Your task to perform on an android device: Clear all items from cart on costco.com. Image 0: 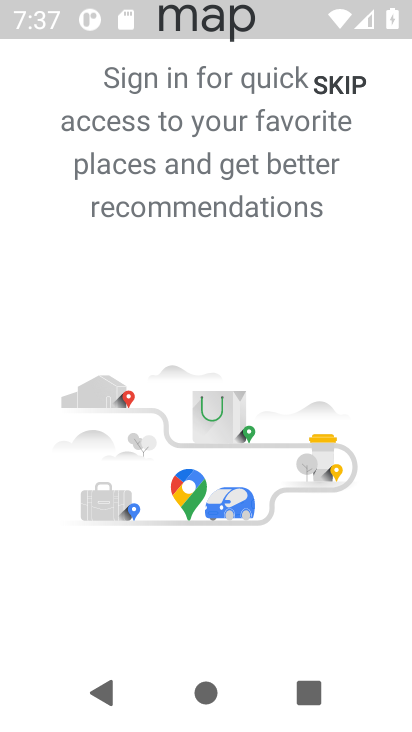
Step 0: press home button
Your task to perform on an android device: Clear all items from cart on costco.com. Image 1: 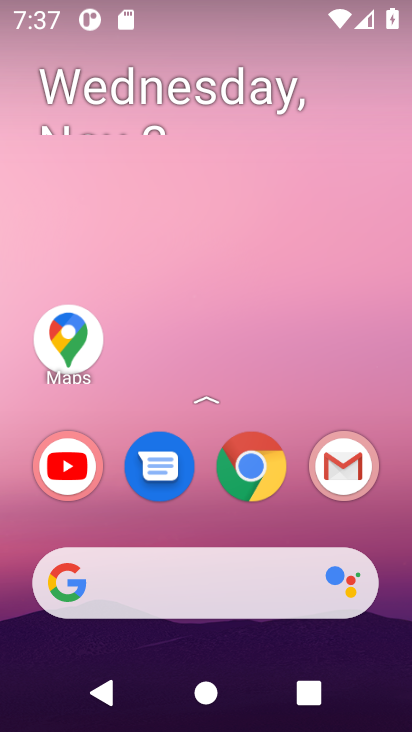
Step 1: click (141, 570)
Your task to perform on an android device: Clear all items from cart on costco.com. Image 2: 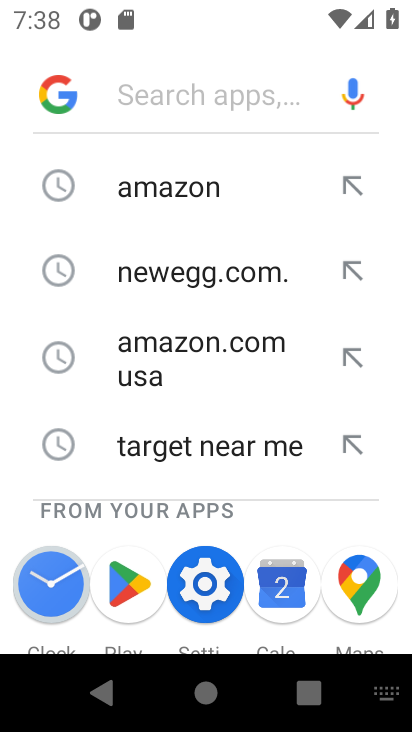
Step 2: type "costco.com"
Your task to perform on an android device: Clear all items from cart on costco.com. Image 3: 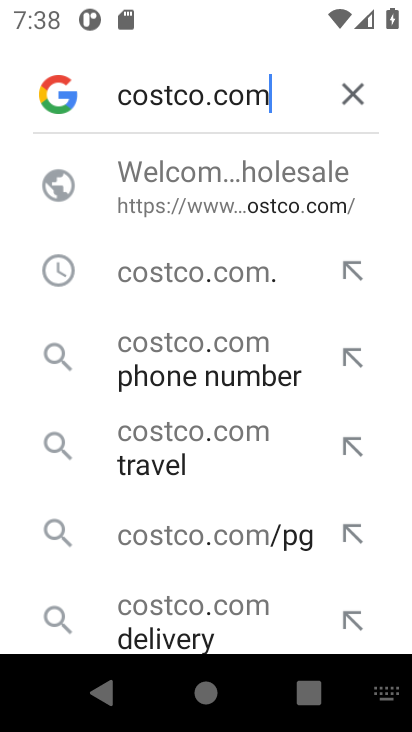
Step 3: click (167, 193)
Your task to perform on an android device: Clear all items from cart on costco.com. Image 4: 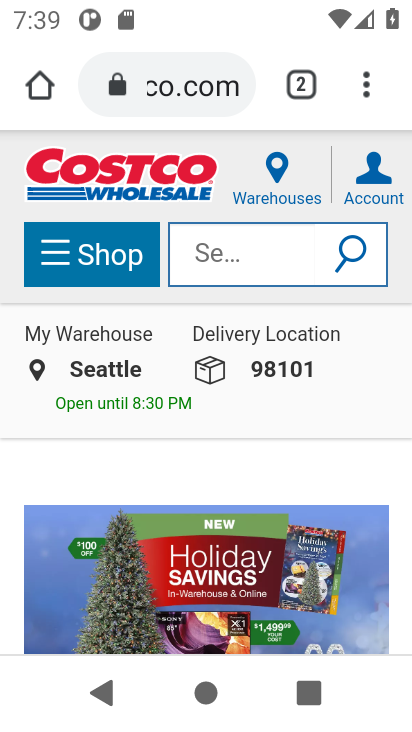
Step 4: drag from (310, 363) to (324, 221)
Your task to perform on an android device: Clear all items from cart on costco.com. Image 5: 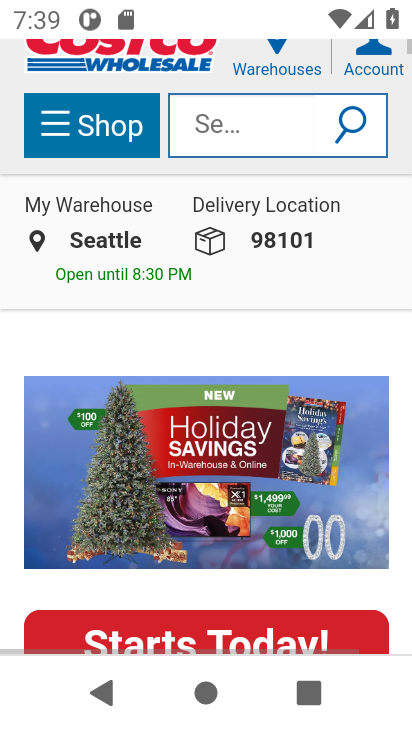
Step 5: drag from (328, 453) to (303, 212)
Your task to perform on an android device: Clear all items from cart on costco.com. Image 6: 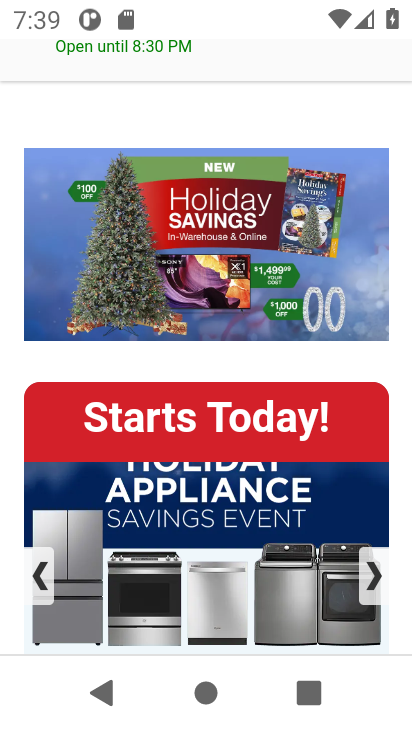
Step 6: drag from (253, 424) to (264, 105)
Your task to perform on an android device: Clear all items from cart on costco.com. Image 7: 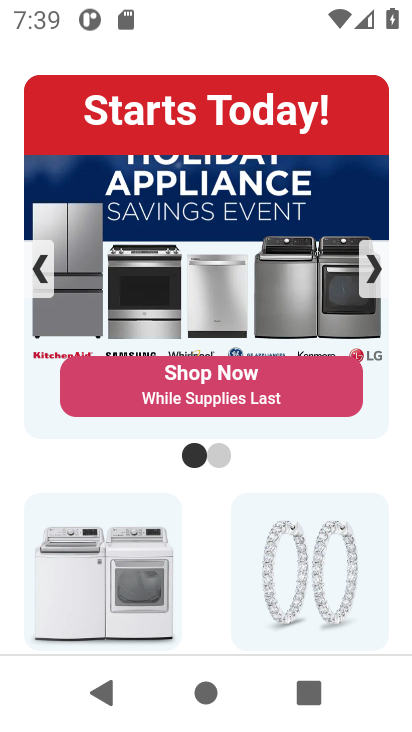
Step 7: drag from (257, 179) to (251, 462)
Your task to perform on an android device: Clear all items from cart on costco.com. Image 8: 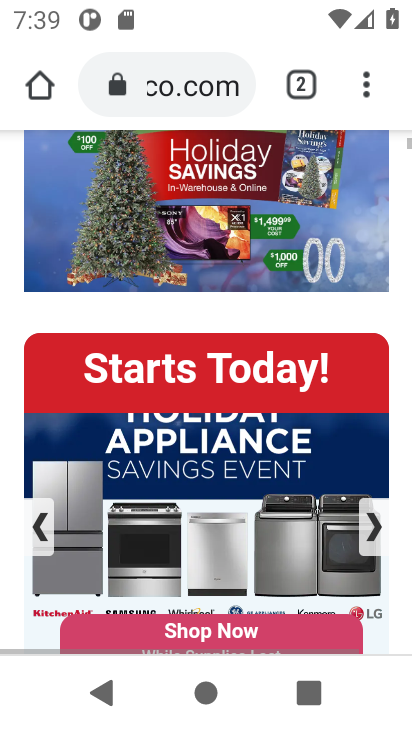
Step 8: drag from (246, 248) to (260, 491)
Your task to perform on an android device: Clear all items from cart on costco.com. Image 9: 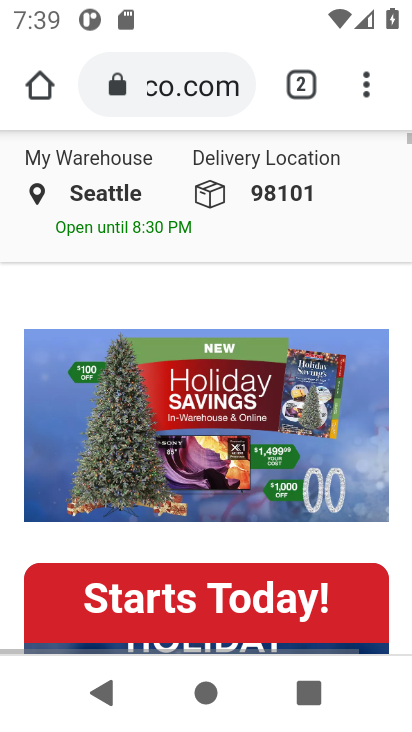
Step 9: drag from (234, 270) to (231, 566)
Your task to perform on an android device: Clear all items from cart on costco.com. Image 10: 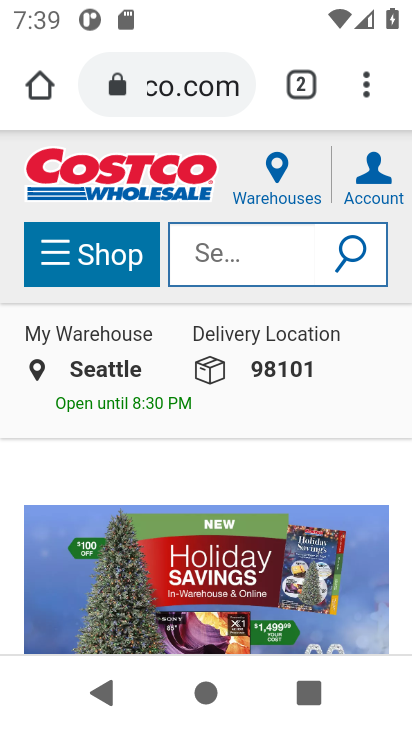
Step 10: drag from (253, 377) to (256, 579)
Your task to perform on an android device: Clear all items from cart on costco.com. Image 11: 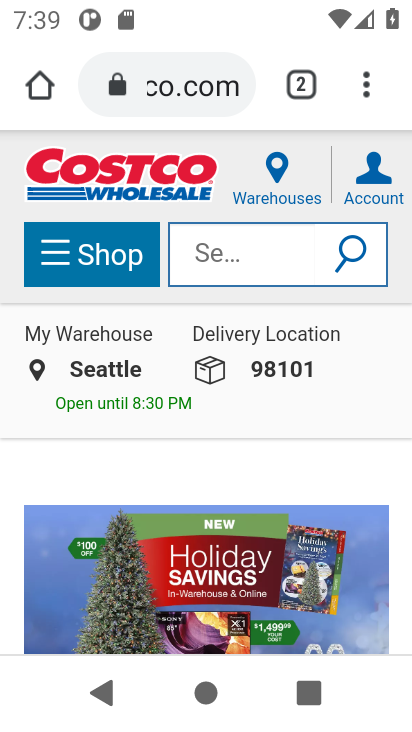
Step 11: click (68, 242)
Your task to perform on an android device: Clear all items from cart on costco.com. Image 12: 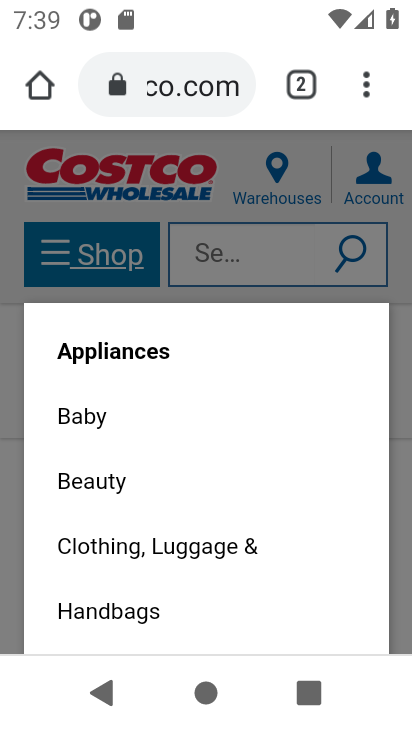
Step 12: click (409, 324)
Your task to perform on an android device: Clear all items from cart on costco.com. Image 13: 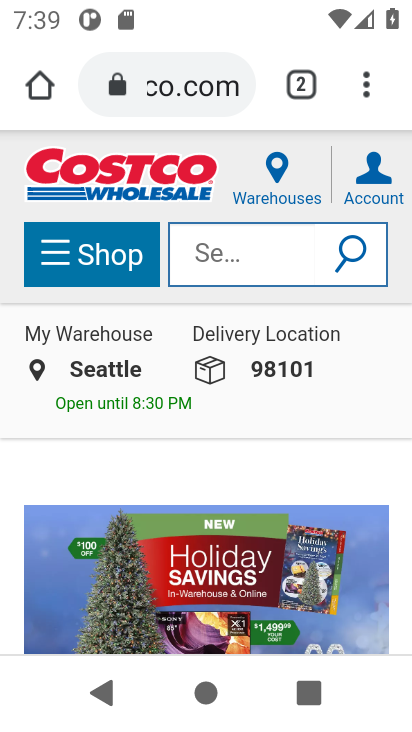
Step 13: drag from (346, 436) to (345, 237)
Your task to perform on an android device: Clear all items from cart on costco.com. Image 14: 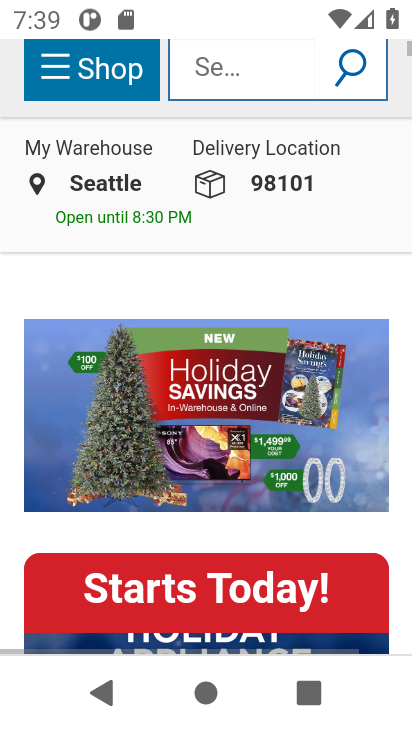
Step 14: drag from (322, 391) to (314, 225)
Your task to perform on an android device: Clear all items from cart on costco.com. Image 15: 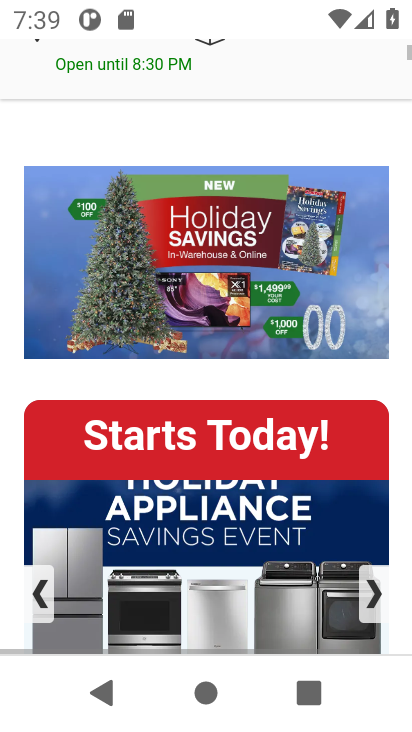
Step 15: drag from (230, 627) to (235, 200)
Your task to perform on an android device: Clear all items from cart on costco.com. Image 16: 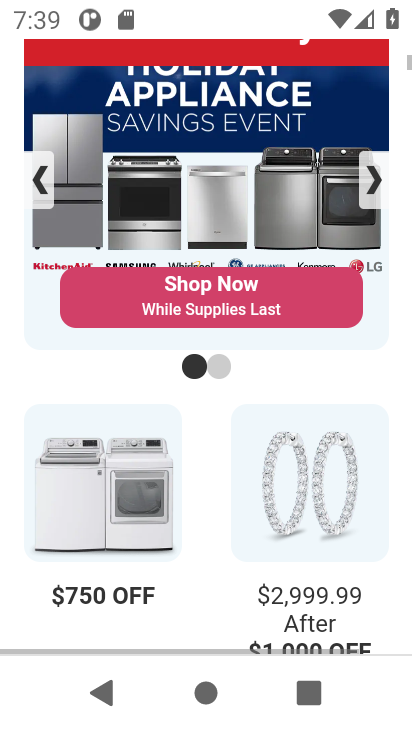
Step 16: drag from (215, 498) to (215, 260)
Your task to perform on an android device: Clear all items from cart on costco.com. Image 17: 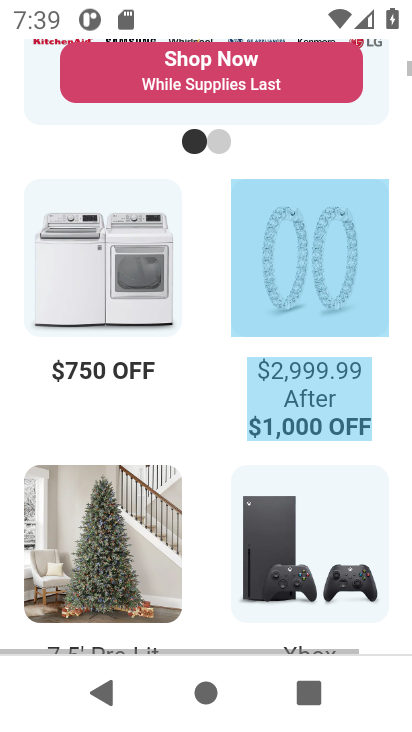
Step 17: drag from (216, 444) to (224, 198)
Your task to perform on an android device: Clear all items from cart on costco.com. Image 18: 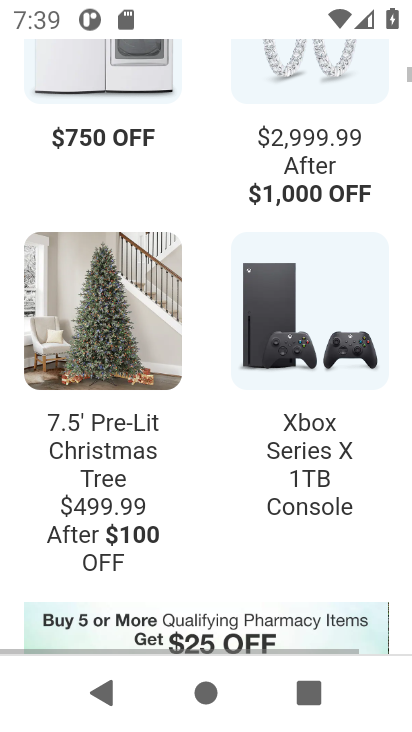
Step 18: drag from (215, 463) to (221, 205)
Your task to perform on an android device: Clear all items from cart on costco.com. Image 19: 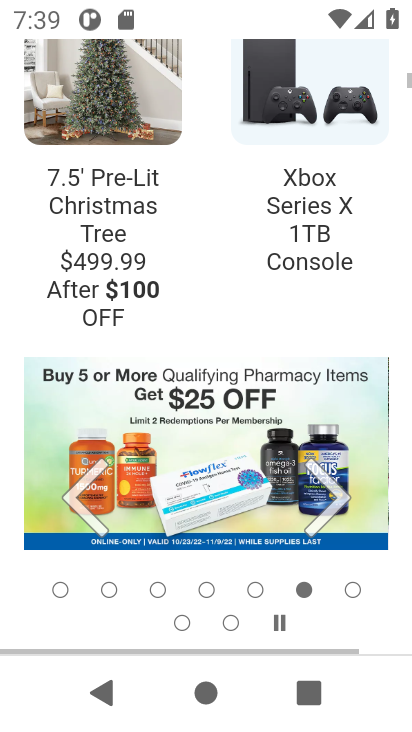
Step 19: drag from (235, 365) to (299, 53)
Your task to perform on an android device: Clear all items from cart on costco.com. Image 20: 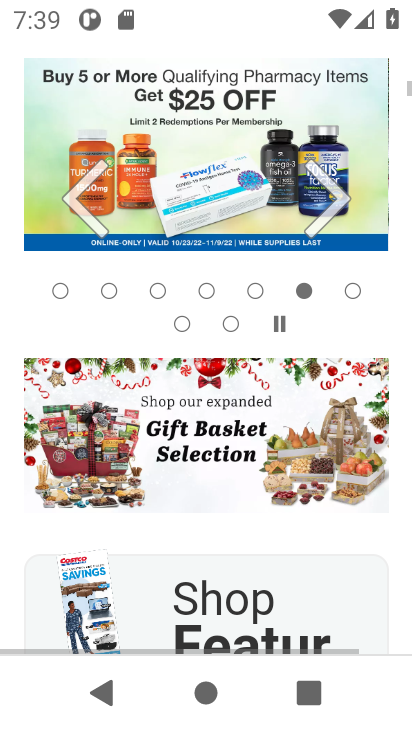
Step 20: drag from (267, 460) to (284, 133)
Your task to perform on an android device: Clear all items from cart on costco.com. Image 21: 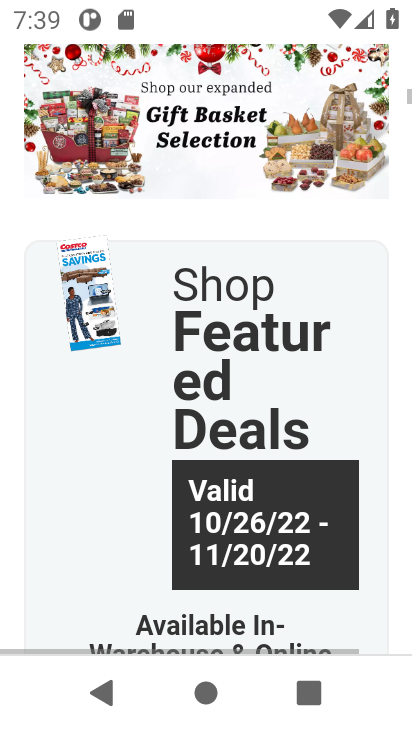
Step 21: drag from (270, 456) to (261, 116)
Your task to perform on an android device: Clear all items from cart on costco.com. Image 22: 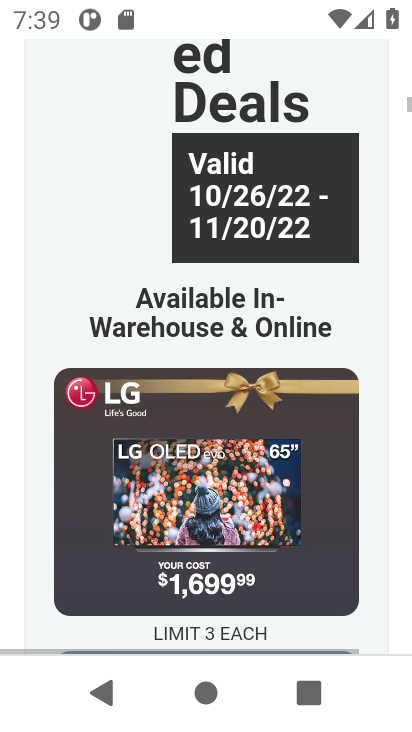
Step 22: drag from (268, 405) to (302, 96)
Your task to perform on an android device: Clear all items from cart on costco.com. Image 23: 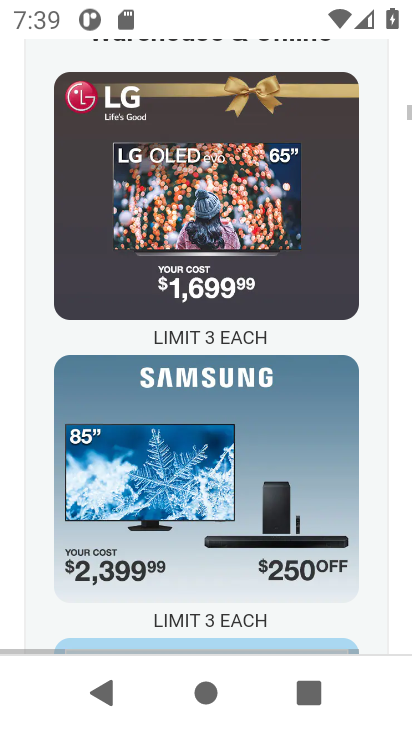
Step 23: drag from (331, 318) to (356, 85)
Your task to perform on an android device: Clear all items from cart on costco.com. Image 24: 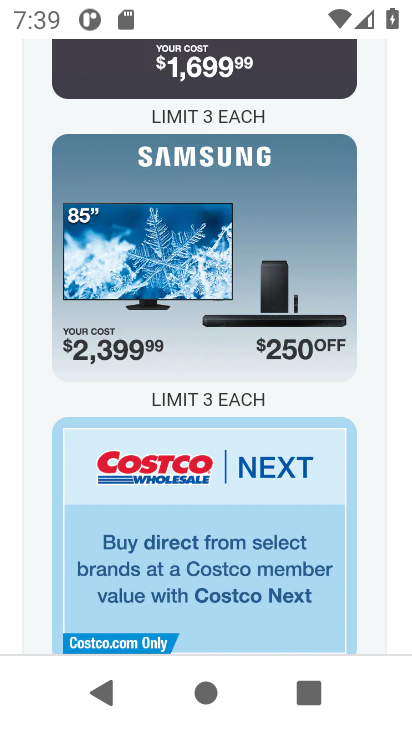
Step 24: drag from (364, 401) to (359, 59)
Your task to perform on an android device: Clear all items from cart on costco.com. Image 25: 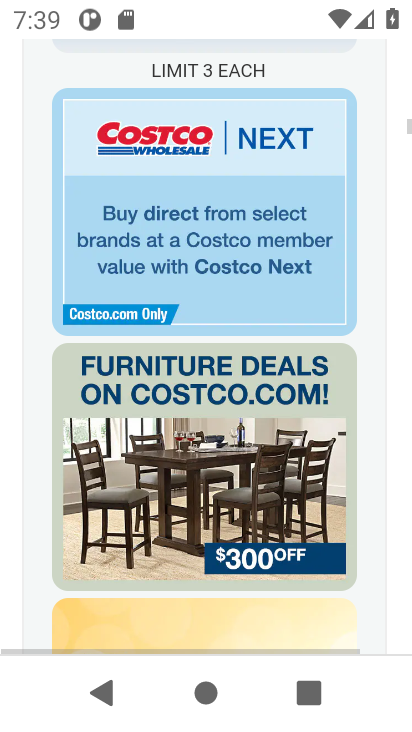
Step 25: drag from (360, 410) to (380, 145)
Your task to perform on an android device: Clear all items from cart on costco.com. Image 26: 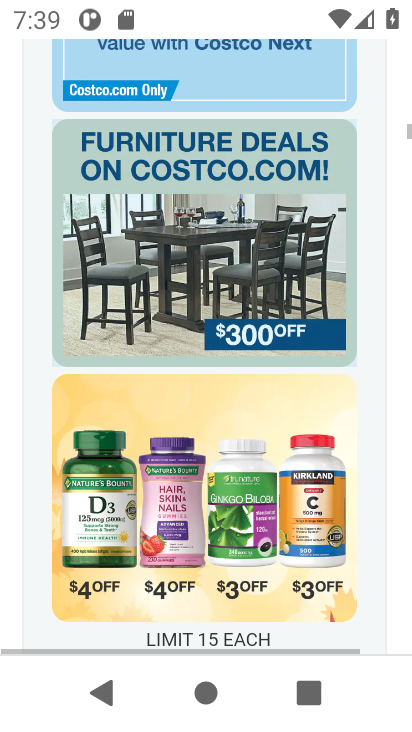
Step 26: drag from (359, 432) to (365, 212)
Your task to perform on an android device: Clear all items from cart on costco.com. Image 27: 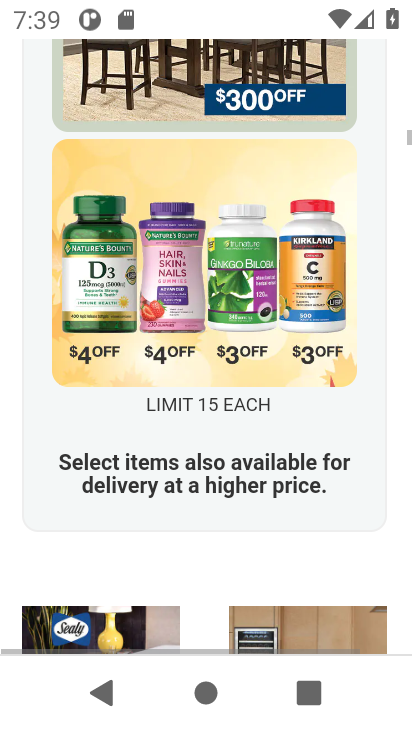
Step 27: click (365, 302)
Your task to perform on an android device: Clear all items from cart on costco.com. Image 28: 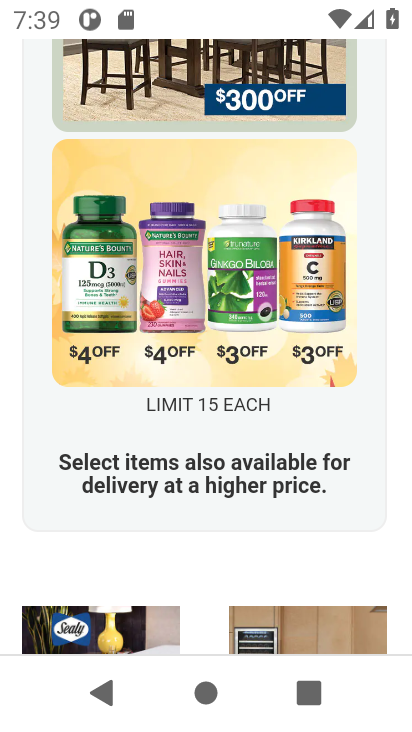
Step 28: drag from (361, 373) to (367, 122)
Your task to perform on an android device: Clear all items from cart on costco.com. Image 29: 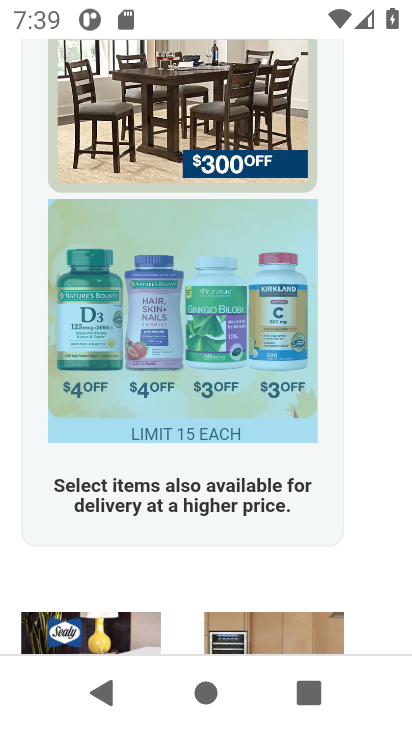
Step 29: drag from (337, 553) to (319, 258)
Your task to perform on an android device: Clear all items from cart on costco.com. Image 30: 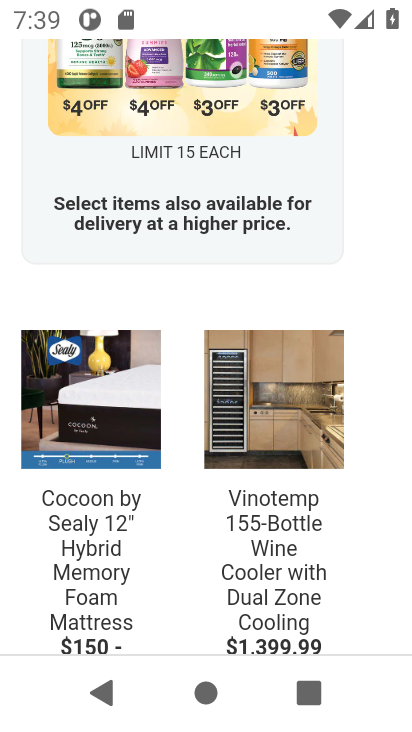
Step 30: drag from (380, 490) to (318, 2)
Your task to perform on an android device: Clear all items from cart on costco.com. Image 31: 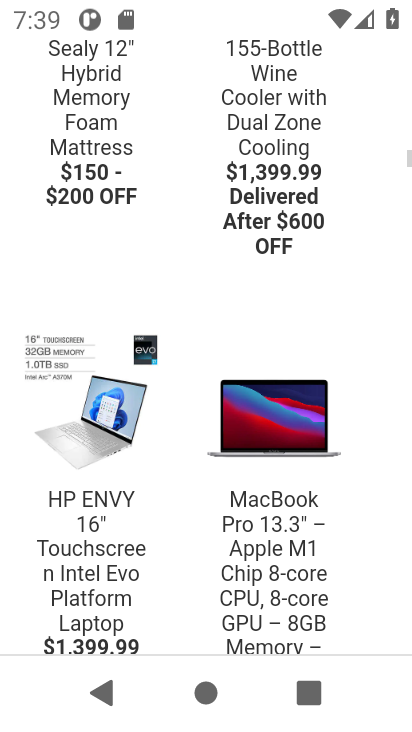
Step 31: drag from (348, 354) to (346, 101)
Your task to perform on an android device: Clear all items from cart on costco.com. Image 32: 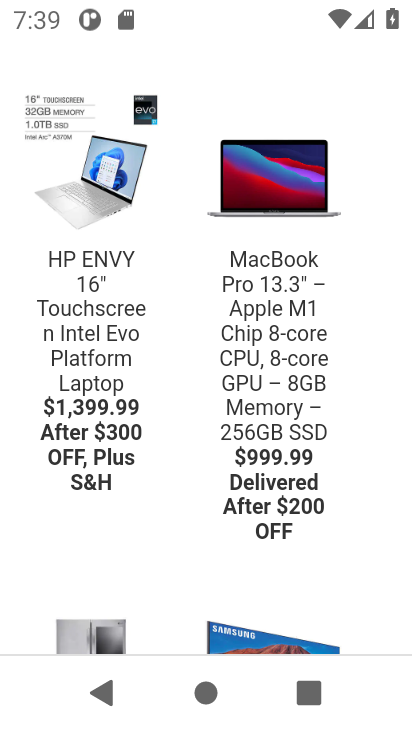
Step 32: drag from (329, 472) to (330, 138)
Your task to perform on an android device: Clear all items from cart on costco.com. Image 33: 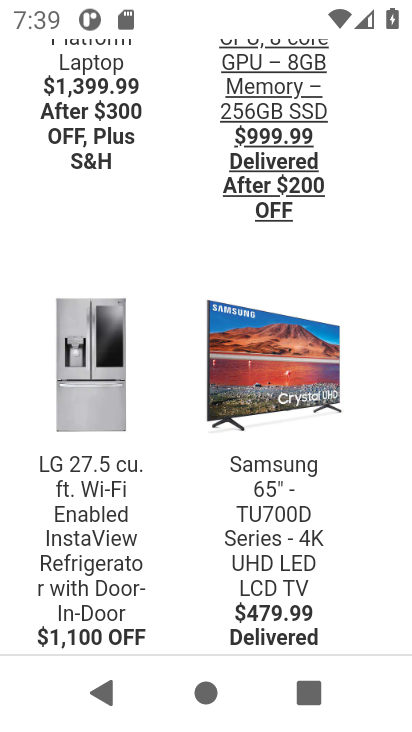
Step 33: drag from (331, 190) to (328, 440)
Your task to perform on an android device: Clear all items from cart on costco.com. Image 34: 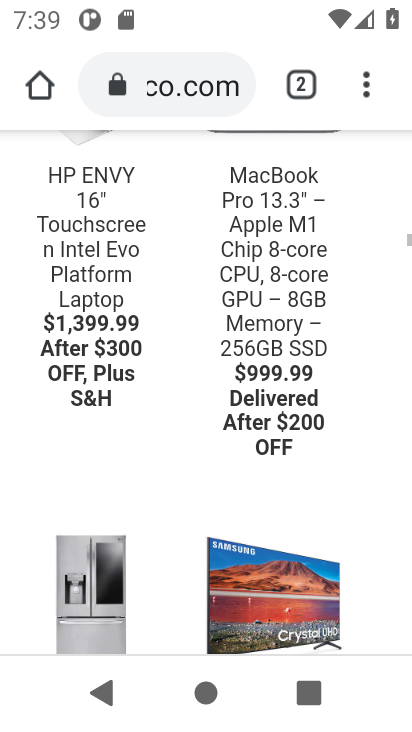
Step 34: drag from (331, 251) to (332, 410)
Your task to perform on an android device: Clear all items from cart on costco.com. Image 35: 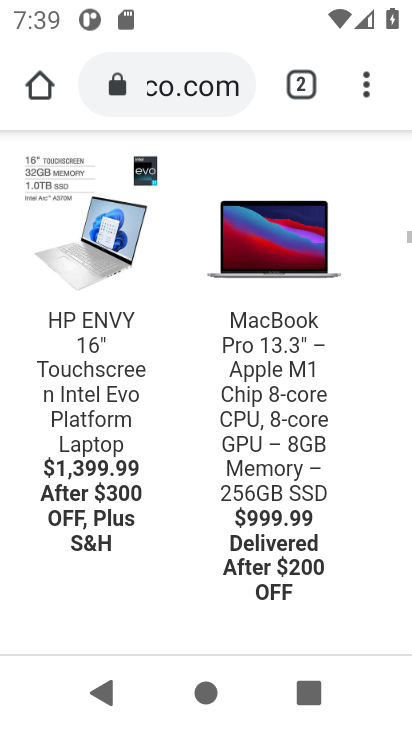
Step 35: drag from (333, 248) to (318, 519)
Your task to perform on an android device: Clear all items from cart on costco.com. Image 36: 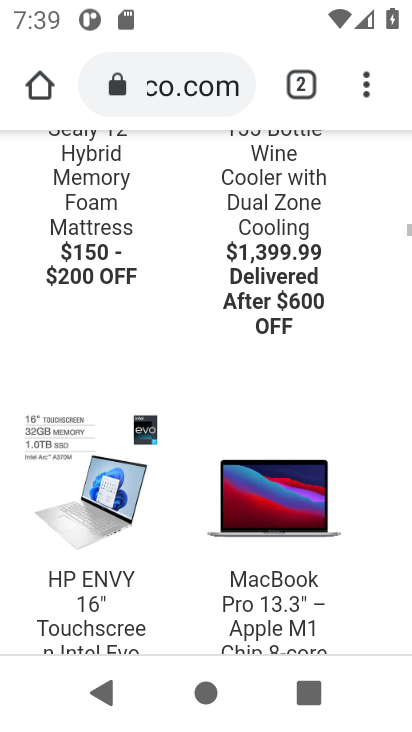
Step 36: drag from (305, 363) to (280, 566)
Your task to perform on an android device: Clear all items from cart on costco.com. Image 37: 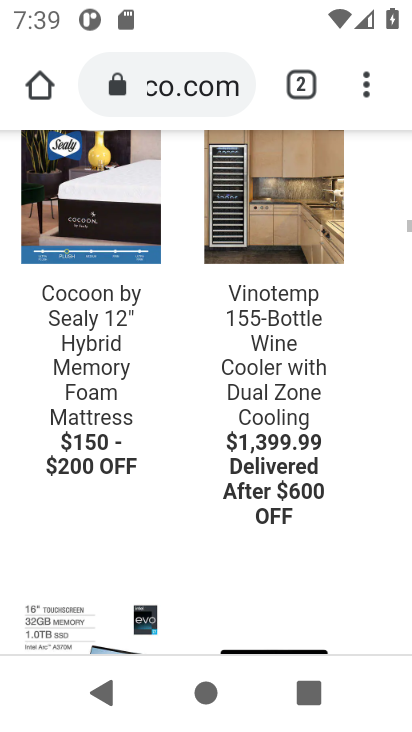
Step 37: drag from (294, 376) to (275, 565)
Your task to perform on an android device: Clear all items from cart on costco.com. Image 38: 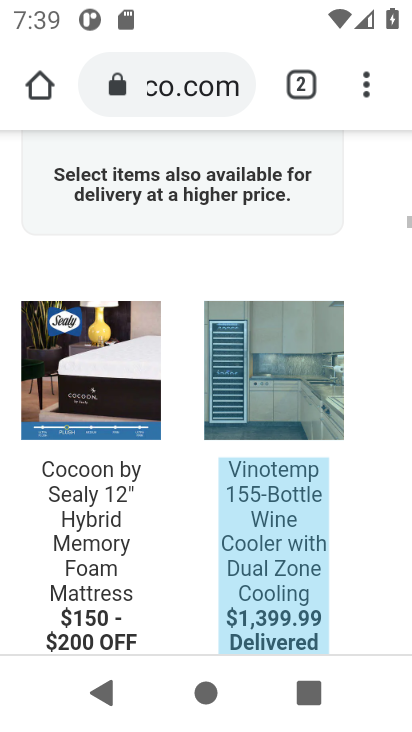
Step 38: drag from (331, 271) to (294, 401)
Your task to perform on an android device: Clear all items from cart on costco.com. Image 39: 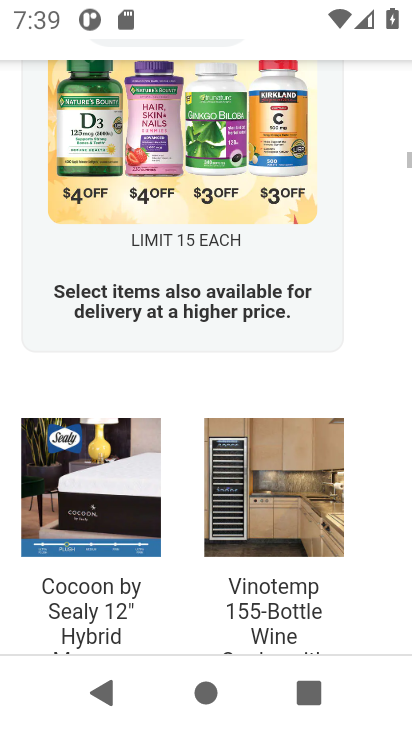
Step 39: drag from (282, 177) to (273, 390)
Your task to perform on an android device: Clear all items from cart on costco.com. Image 40: 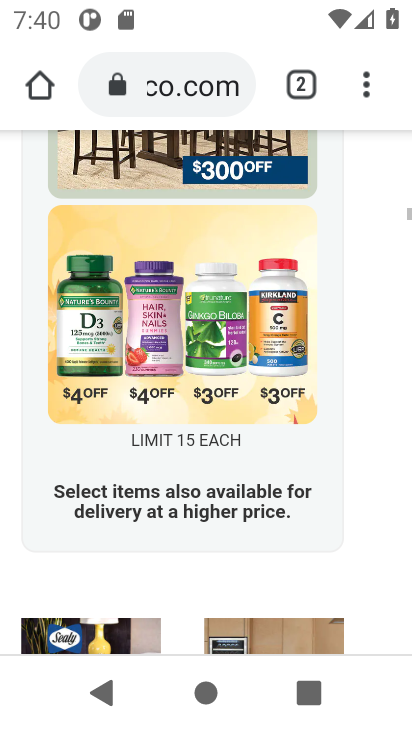
Step 40: drag from (275, 215) to (279, 429)
Your task to perform on an android device: Clear all items from cart on costco.com. Image 41: 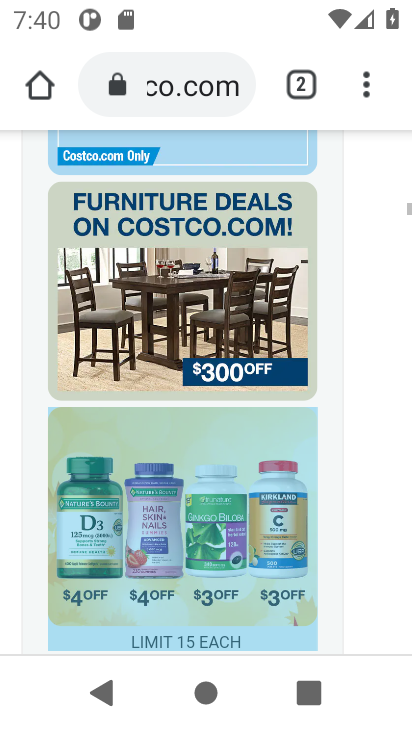
Step 41: drag from (298, 148) to (286, 483)
Your task to perform on an android device: Clear all items from cart on costco.com. Image 42: 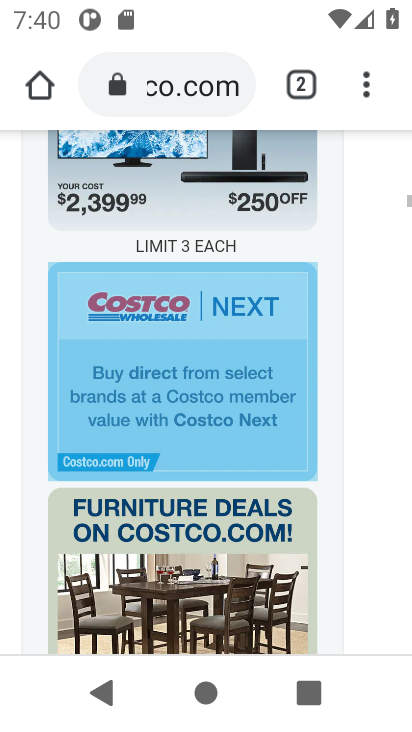
Step 42: drag from (303, 285) to (285, 507)
Your task to perform on an android device: Clear all items from cart on costco.com. Image 43: 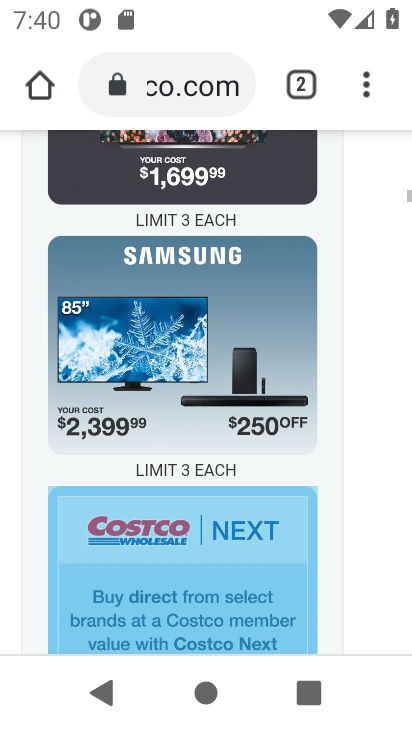
Step 43: drag from (301, 263) to (300, 538)
Your task to perform on an android device: Clear all items from cart on costco.com. Image 44: 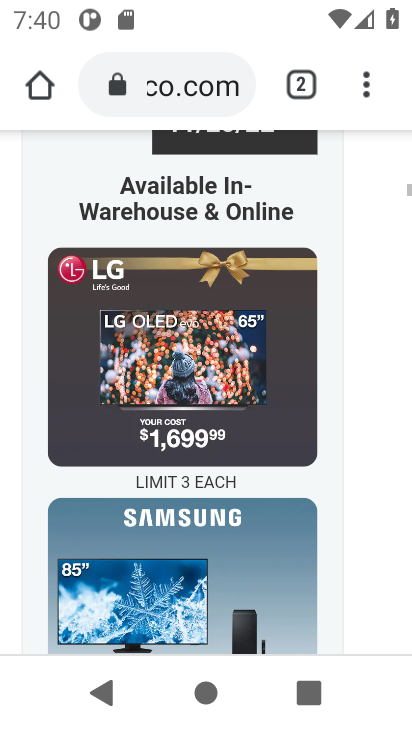
Step 44: drag from (325, 392) to (320, 568)
Your task to perform on an android device: Clear all items from cart on costco.com. Image 45: 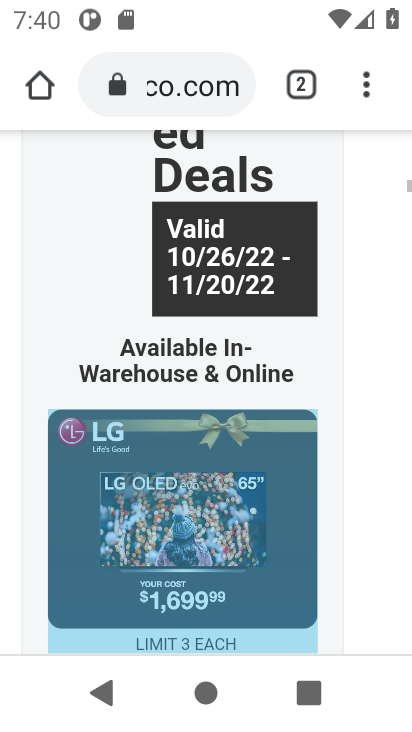
Step 45: drag from (344, 320) to (320, 644)
Your task to perform on an android device: Clear all items from cart on costco.com. Image 46: 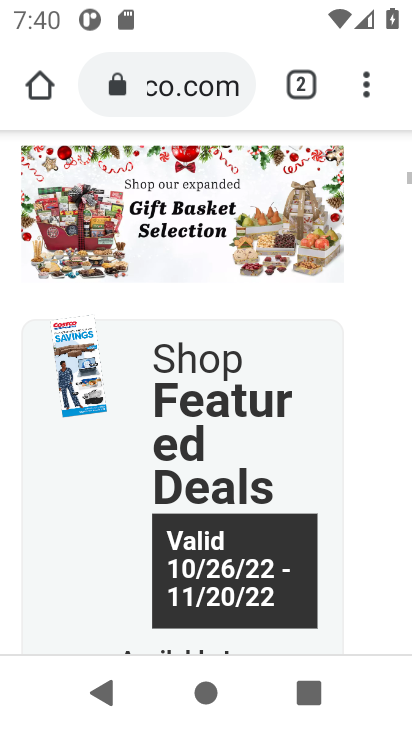
Step 46: drag from (331, 254) to (338, 571)
Your task to perform on an android device: Clear all items from cart on costco.com. Image 47: 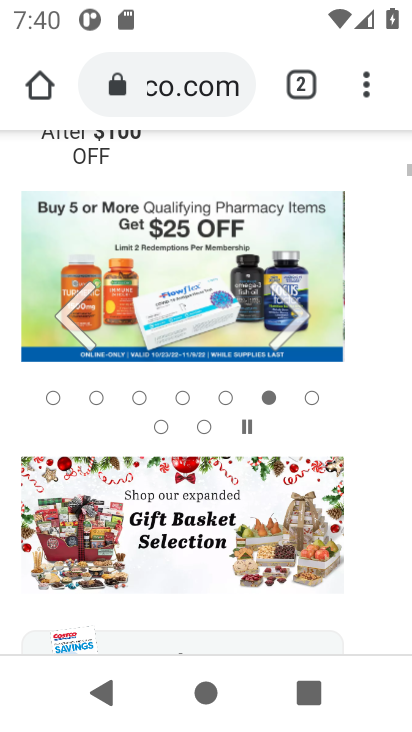
Step 47: drag from (357, 264) to (355, 514)
Your task to perform on an android device: Clear all items from cart on costco.com. Image 48: 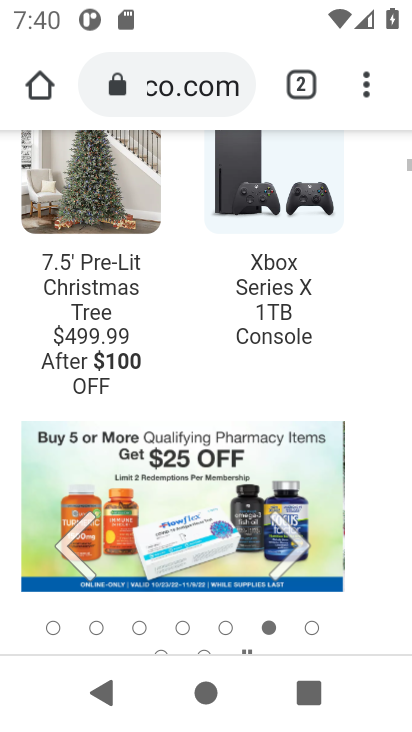
Step 48: drag from (396, 253) to (296, 466)
Your task to perform on an android device: Clear all items from cart on costco.com. Image 49: 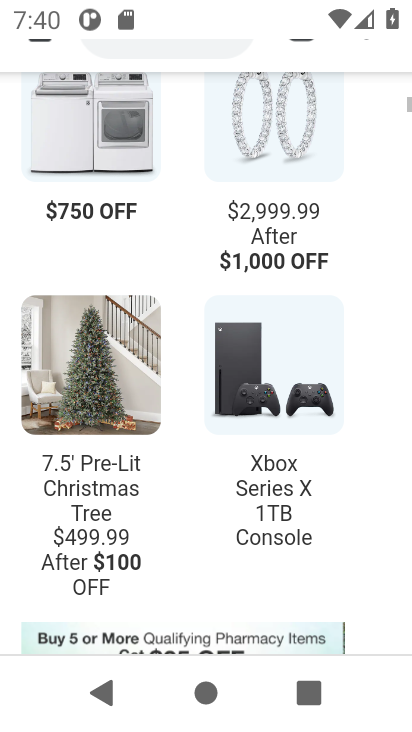
Step 49: drag from (282, 276) to (280, 540)
Your task to perform on an android device: Clear all items from cart on costco.com. Image 50: 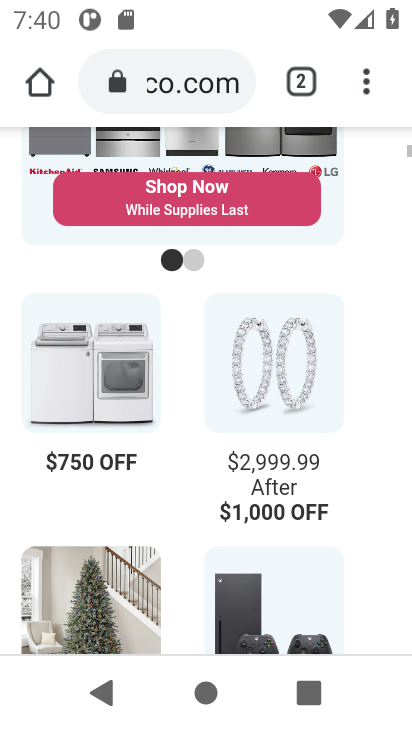
Step 50: drag from (288, 315) to (279, 547)
Your task to perform on an android device: Clear all items from cart on costco.com. Image 51: 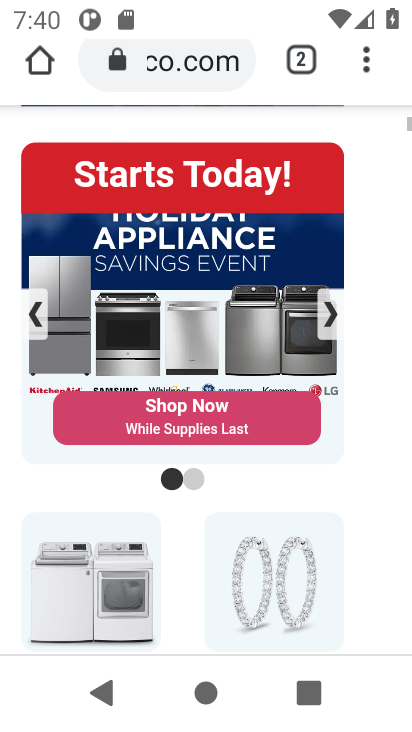
Step 51: click (305, 572)
Your task to perform on an android device: Clear all items from cart on costco.com. Image 52: 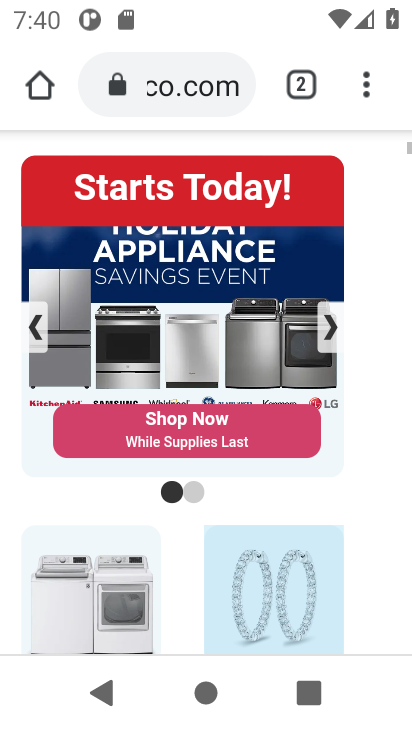
Step 52: drag from (306, 506) to (303, 688)
Your task to perform on an android device: Clear all items from cart on costco.com. Image 53: 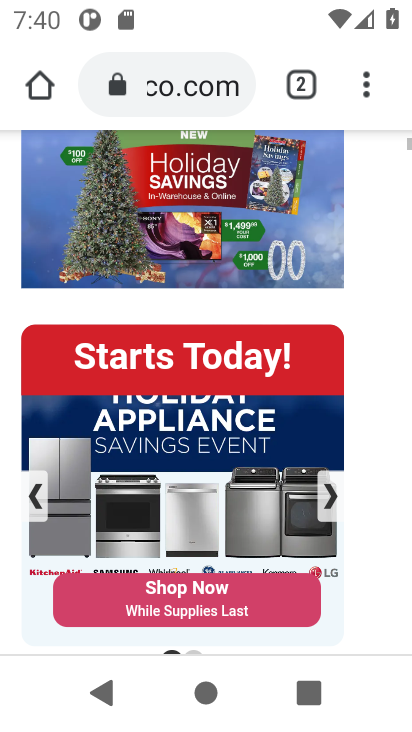
Step 53: drag from (276, 401) to (293, 628)
Your task to perform on an android device: Clear all items from cart on costco.com. Image 54: 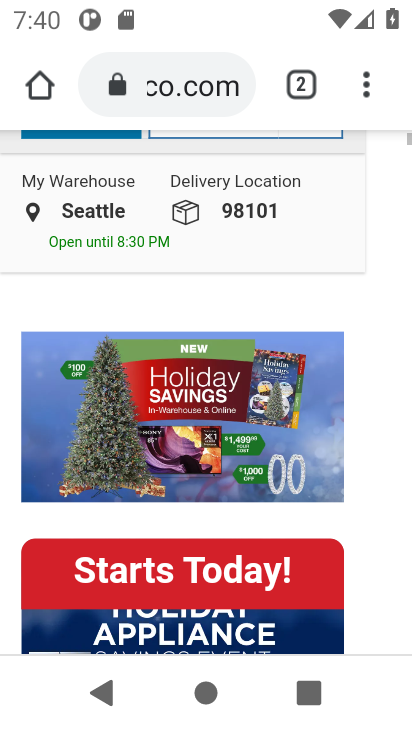
Step 54: drag from (324, 397) to (362, 697)
Your task to perform on an android device: Clear all items from cart on costco.com. Image 55: 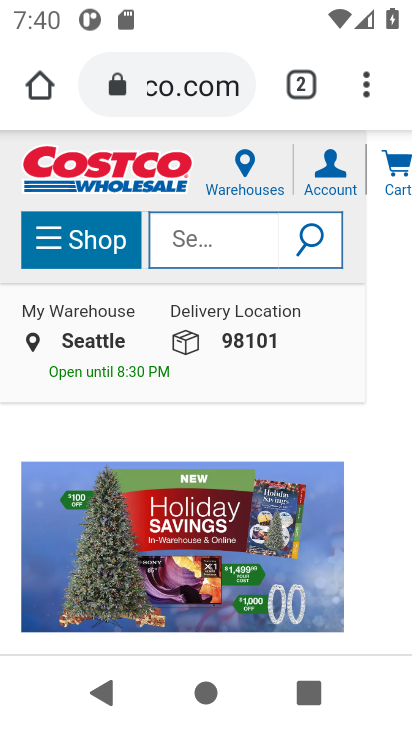
Step 55: click (393, 175)
Your task to perform on an android device: Clear all items from cart on costco.com. Image 56: 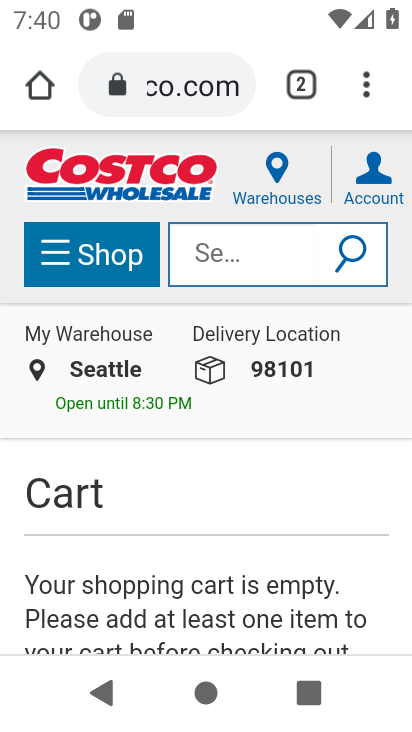
Step 56: task complete